Your task to perform on an android device: Open Android settings Image 0: 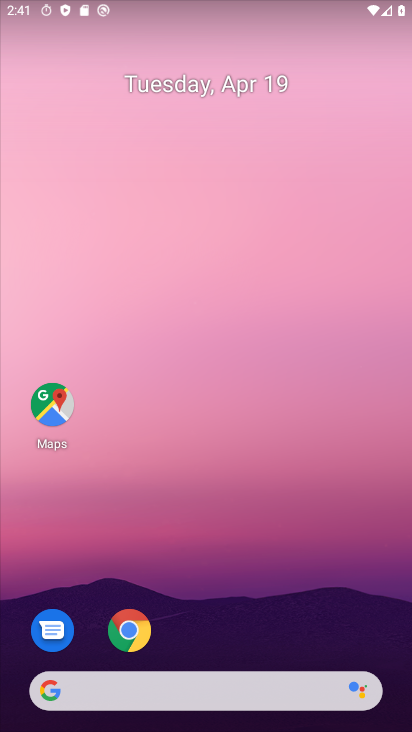
Step 0: drag from (255, 647) to (267, 128)
Your task to perform on an android device: Open Android settings Image 1: 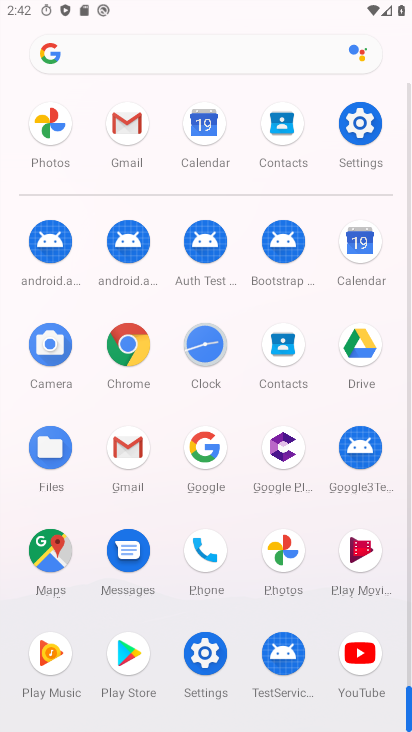
Step 1: click (364, 129)
Your task to perform on an android device: Open Android settings Image 2: 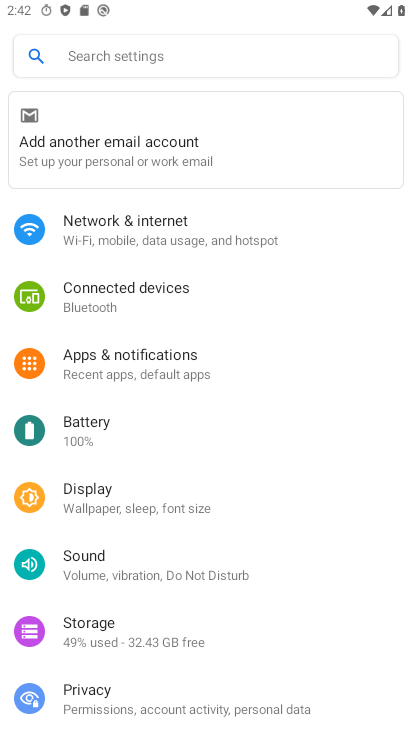
Step 2: drag from (279, 674) to (277, 240)
Your task to perform on an android device: Open Android settings Image 3: 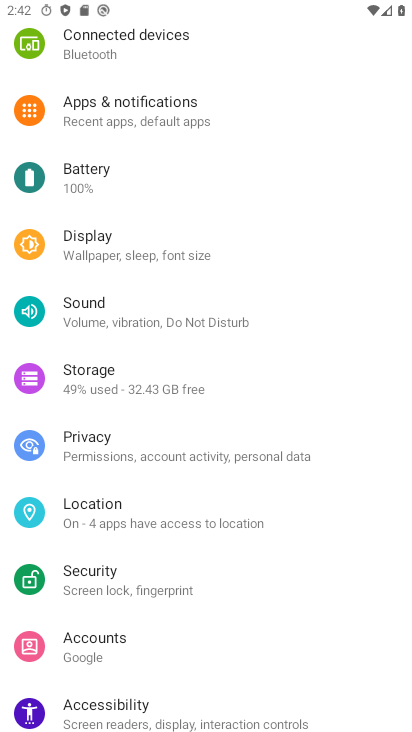
Step 3: drag from (284, 690) to (311, 209)
Your task to perform on an android device: Open Android settings Image 4: 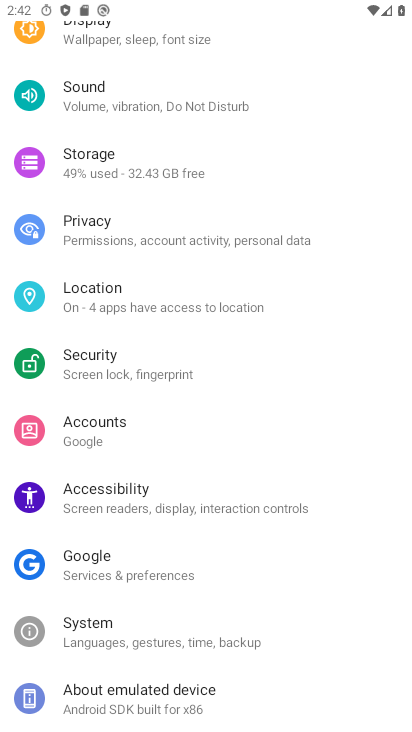
Step 4: click (179, 698)
Your task to perform on an android device: Open Android settings Image 5: 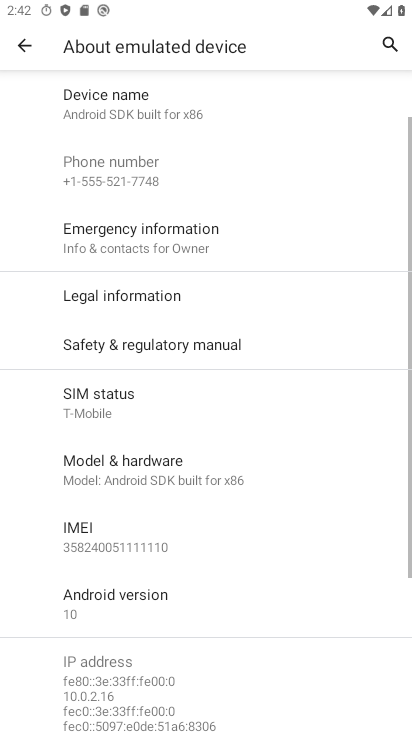
Step 5: drag from (240, 656) to (286, 363)
Your task to perform on an android device: Open Android settings Image 6: 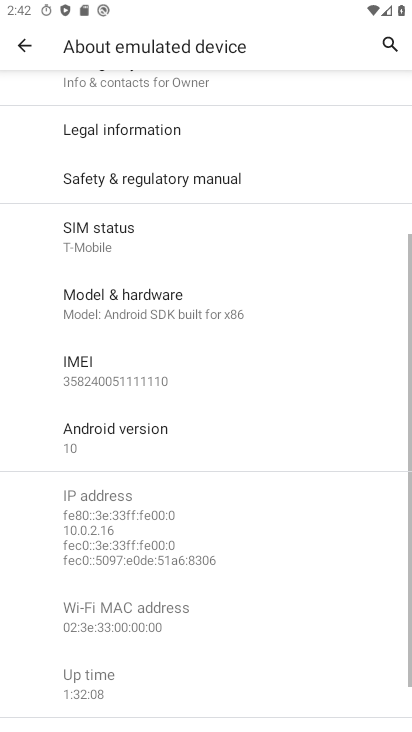
Step 6: click (113, 431)
Your task to perform on an android device: Open Android settings Image 7: 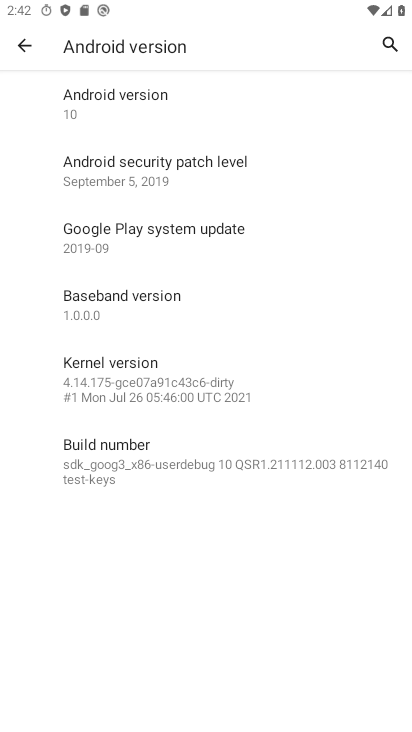
Step 7: task complete